Your task to perform on an android device: turn off wifi Image 0: 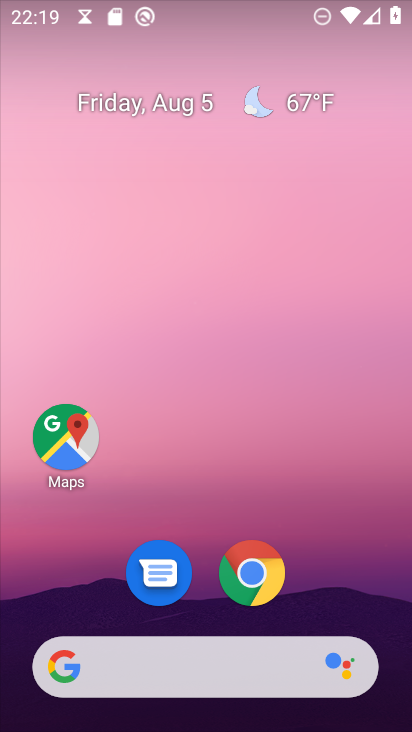
Step 0: drag from (175, 688) to (162, 106)
Your task to perform on an android device: turn off wifi Image 1: 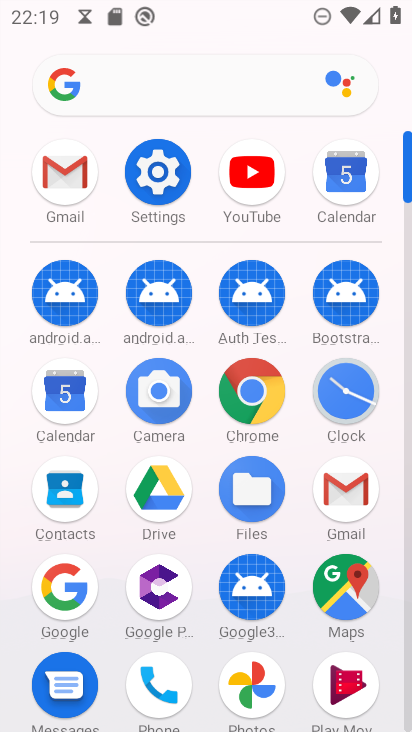
Step 1: click (156, 174)
Your task to perform on an android device: turn off wifi Image 2: 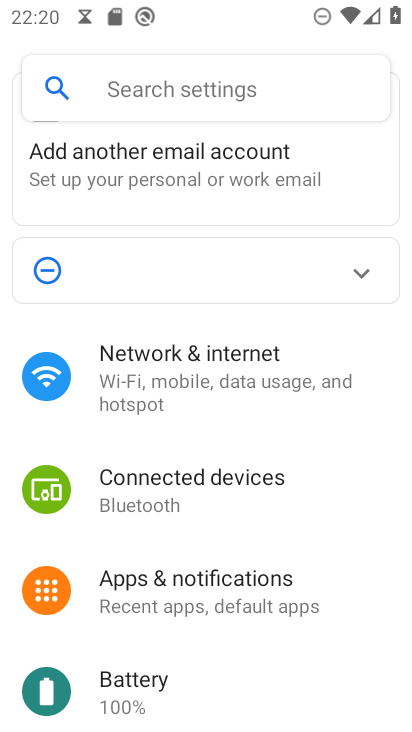
Step 2: drag from (170, 558) to (293, 411)
Your task to perform on an android device: turn off wifi Image 3: 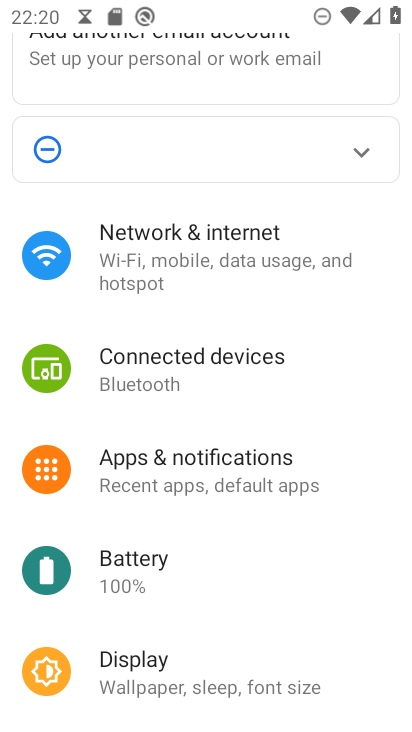
Step 3: drag from (197, 519) to (286, 342)
Your task to perform on an android device: turn off wifi Image 4: 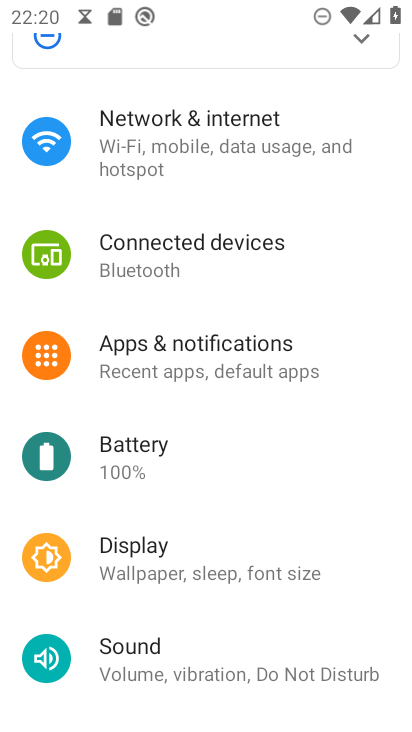
Step 4: drag from (164, 514) to (233, 427)
Your task to perform on an android device: turn off wifi Image 5: 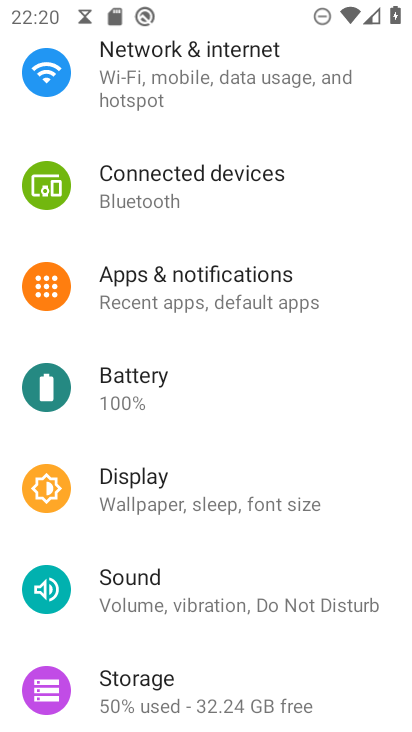
Step 5: drag from (264, 239) to (203, 499)
Your task to perform on an android device: turn off wifi Image 6: 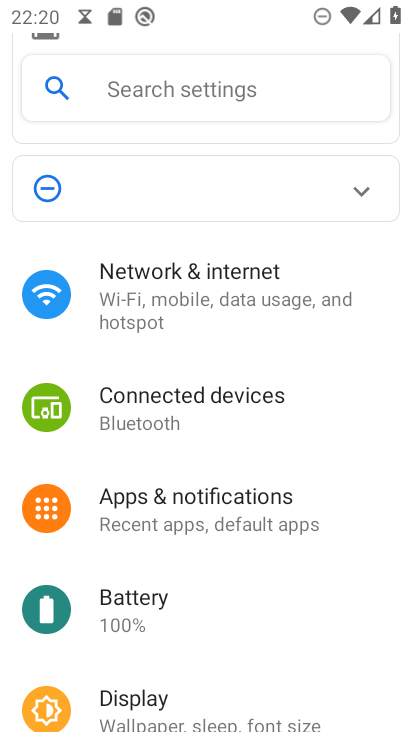
Step 6: click (259, 288)
Your task to perform on an android device: turn off wifi Image 7: 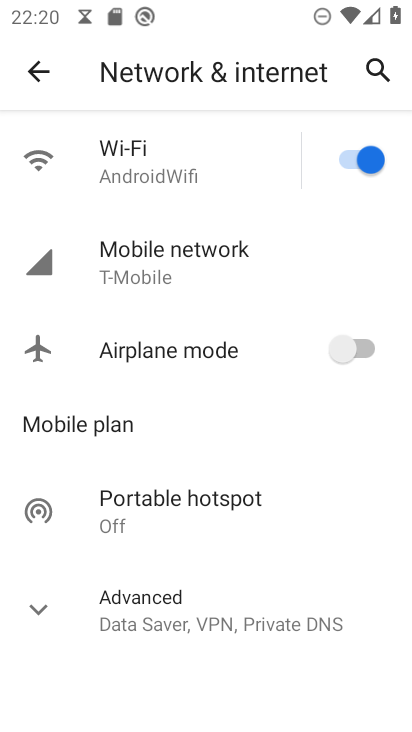
Step 7: click (355, 167)
Your task to perform on an android device: turn off wifi Image 8: 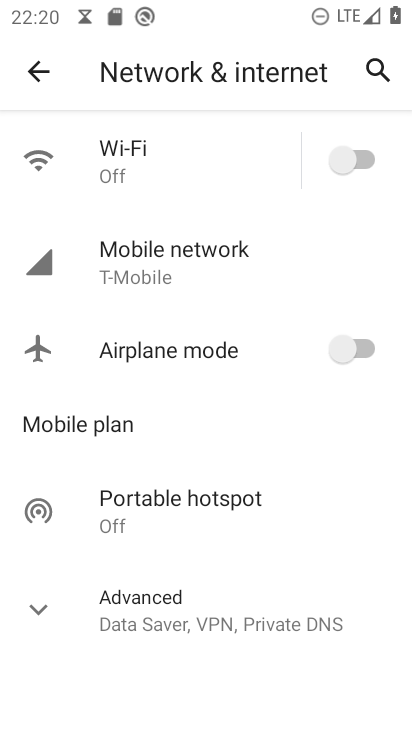
Step 8: task complete